Your task to perform on an android device: Go to Google Image 0: 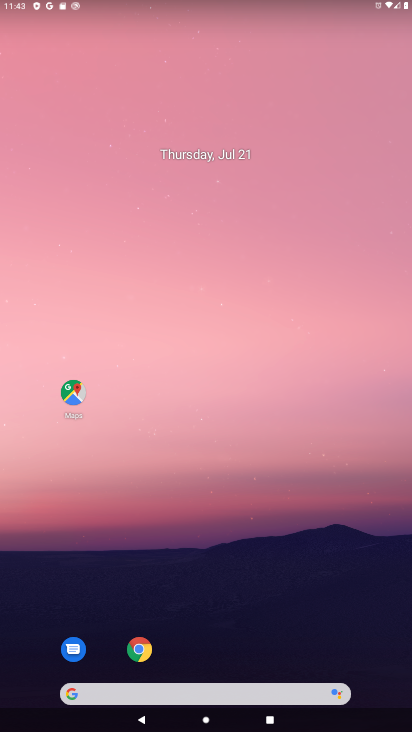
Step 0: drag from (302, 592) to (242, 48)
Your task to perform on an android device: Go to Google Image 1: 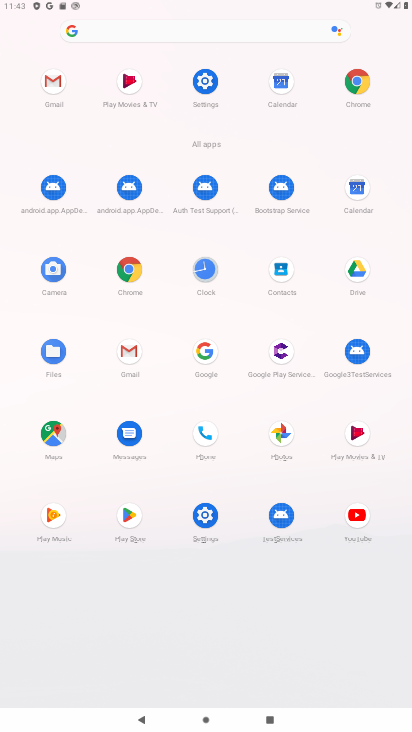
Step 1: click (202, 350)
Your task to perform on an android device: Go to Google Image 2: 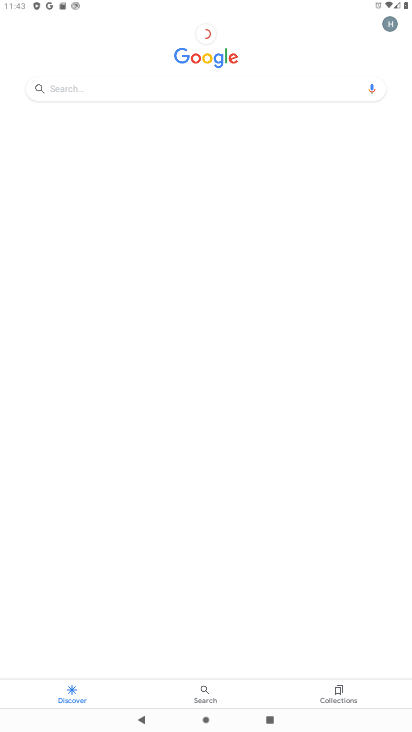
Step 2: task complete